Your task to perform on an android device: change timer sound Image 0: 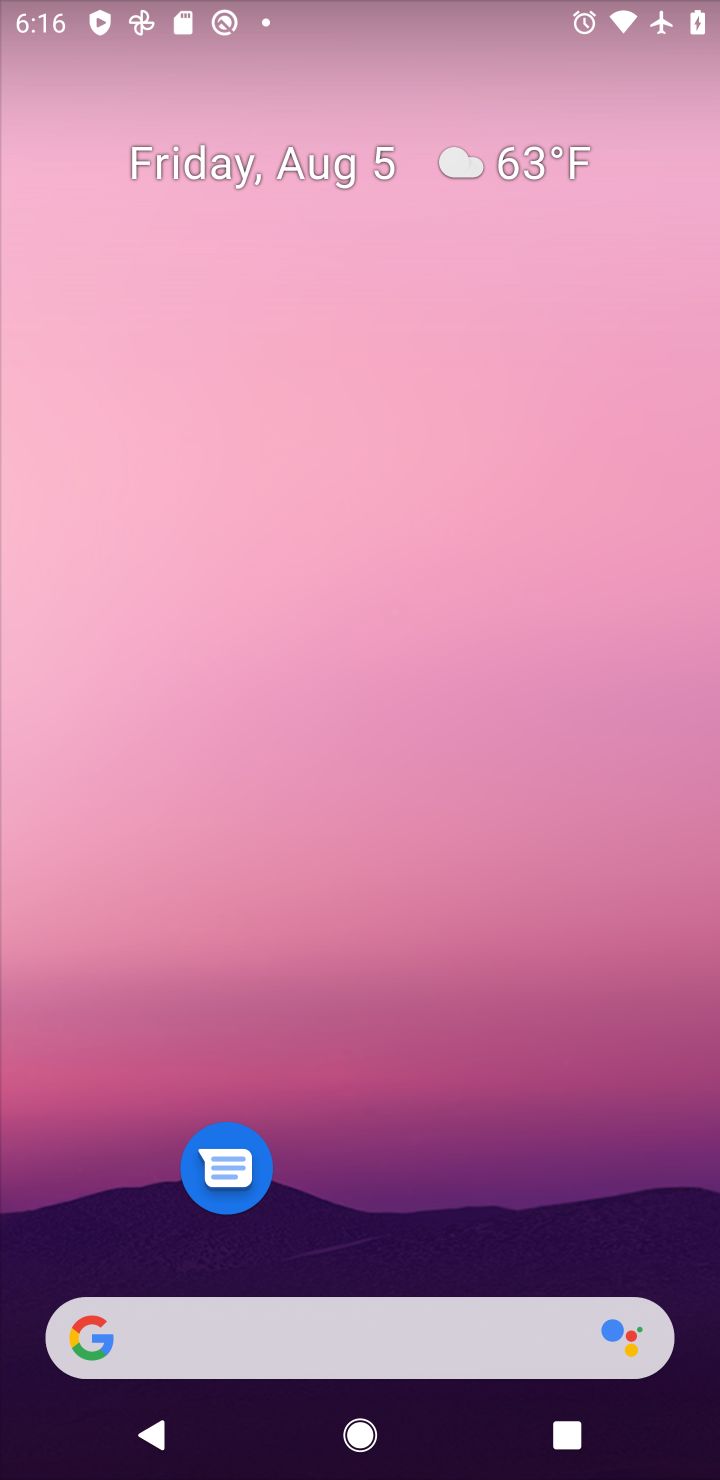
Step 0: press home button
Your task to perform on an android device: change timer sound Image 1: 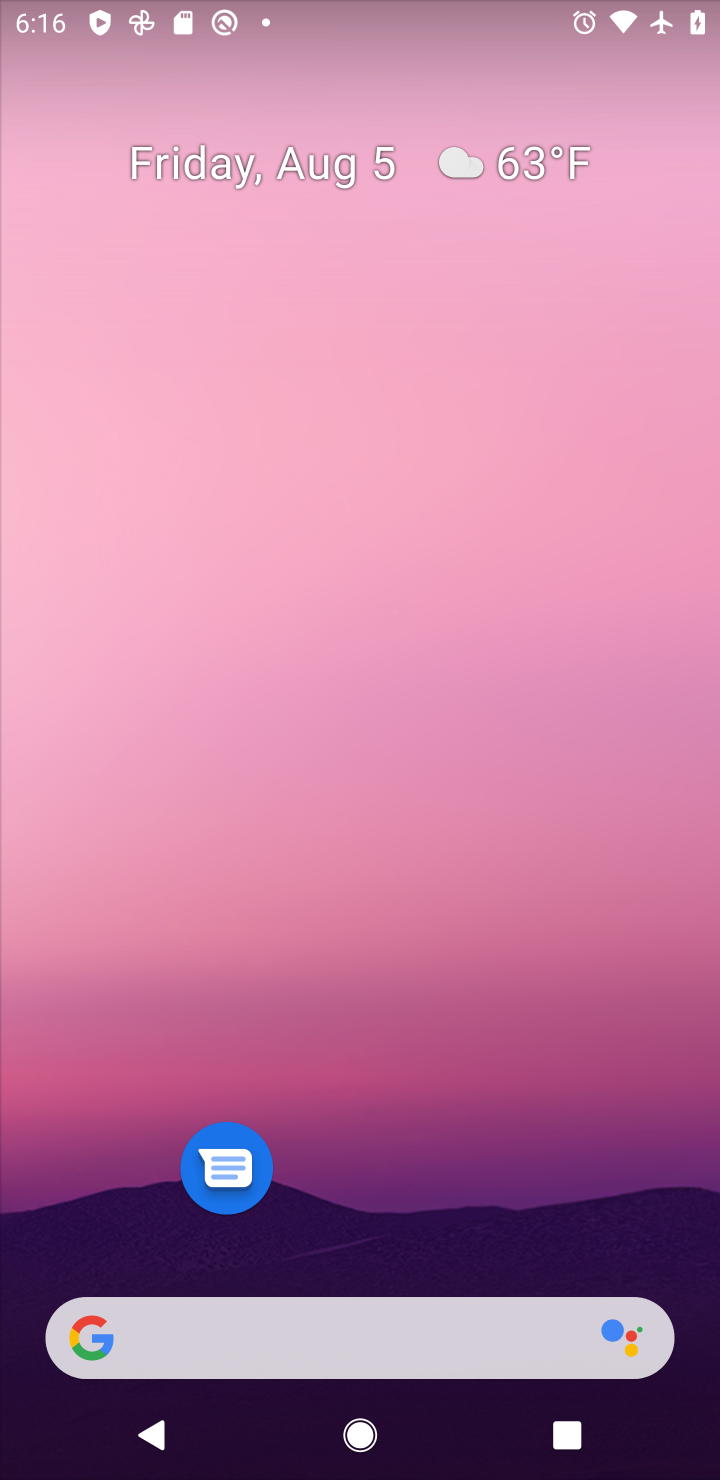
Step 1: drag from (401, 1267) to (437, 337)
Your task to perform on an android device: change timer sound Image 2: 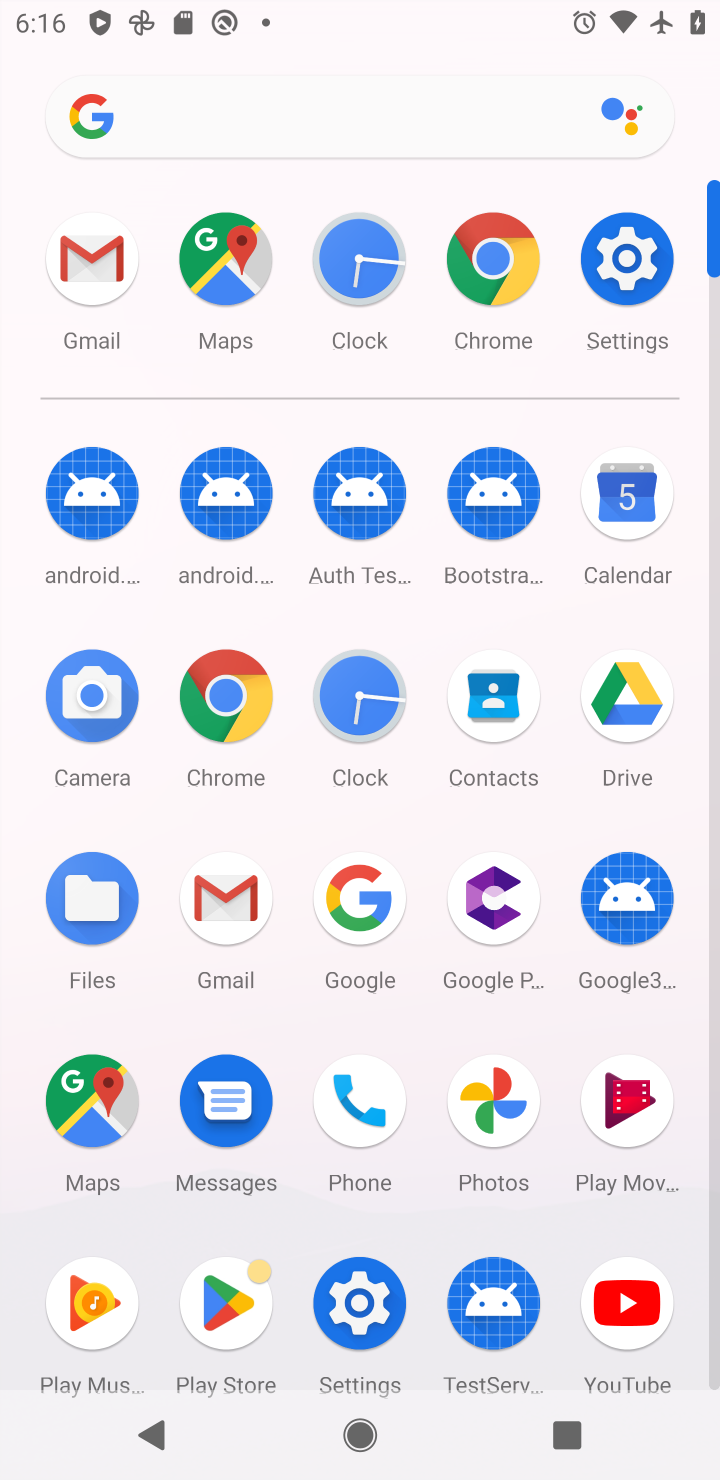
Step 2: click (356, 673)
Your task to perform on an android device: change timer sound Image 3: 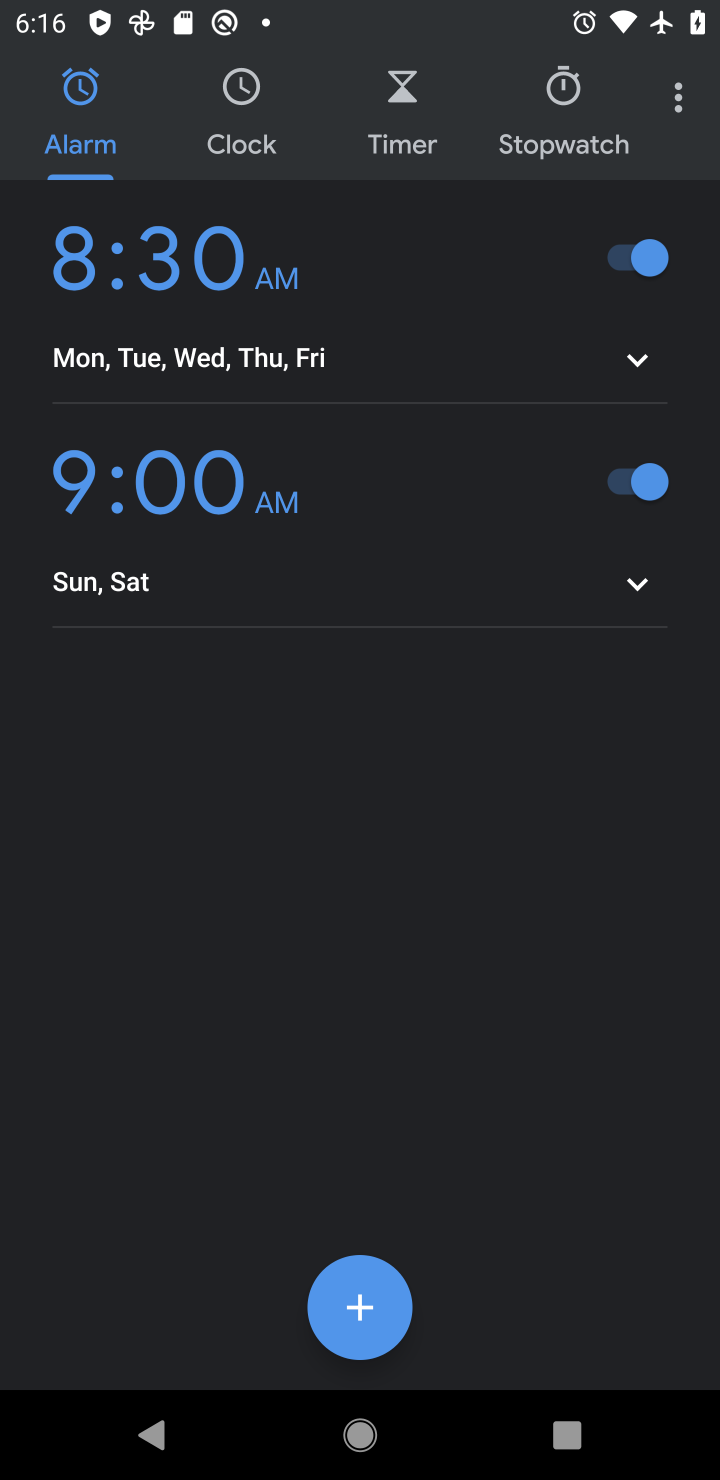
Step 3: click (677, 113)
Your task to perform on an android device: change timer sound Image 4: 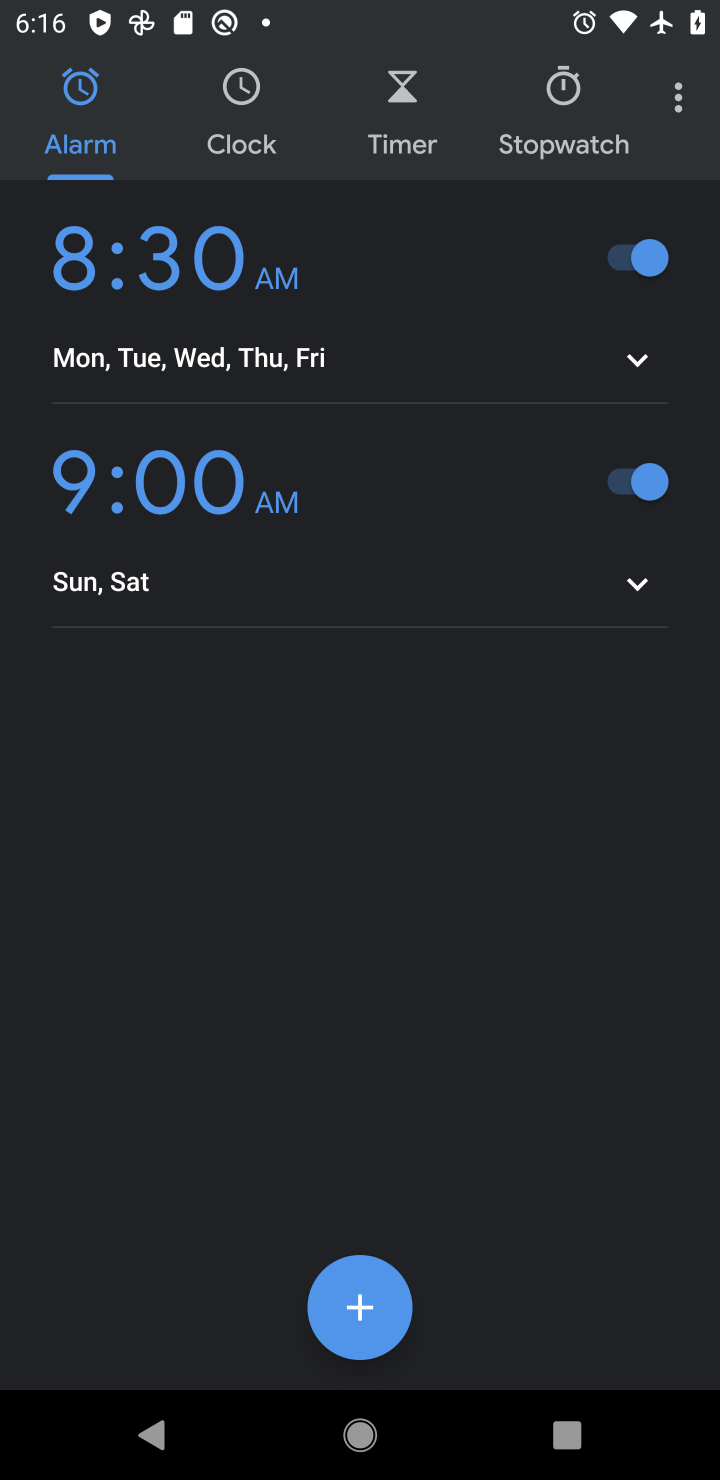
Step 4: click (671, 116)
Your task to perform on an android device: change timer sound Image 5: 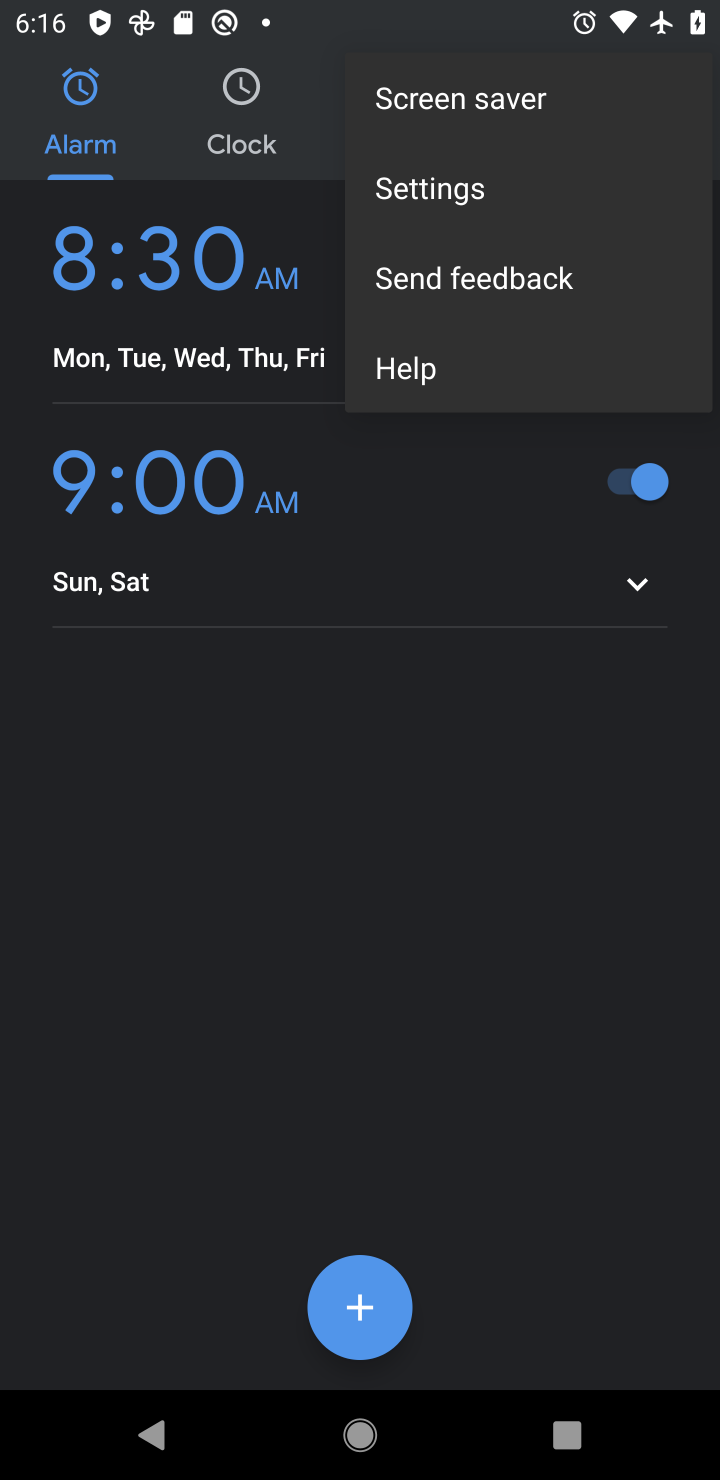
Step 5: click (409, 197)
Your task to perform on an android device: change timer sound Image 6: 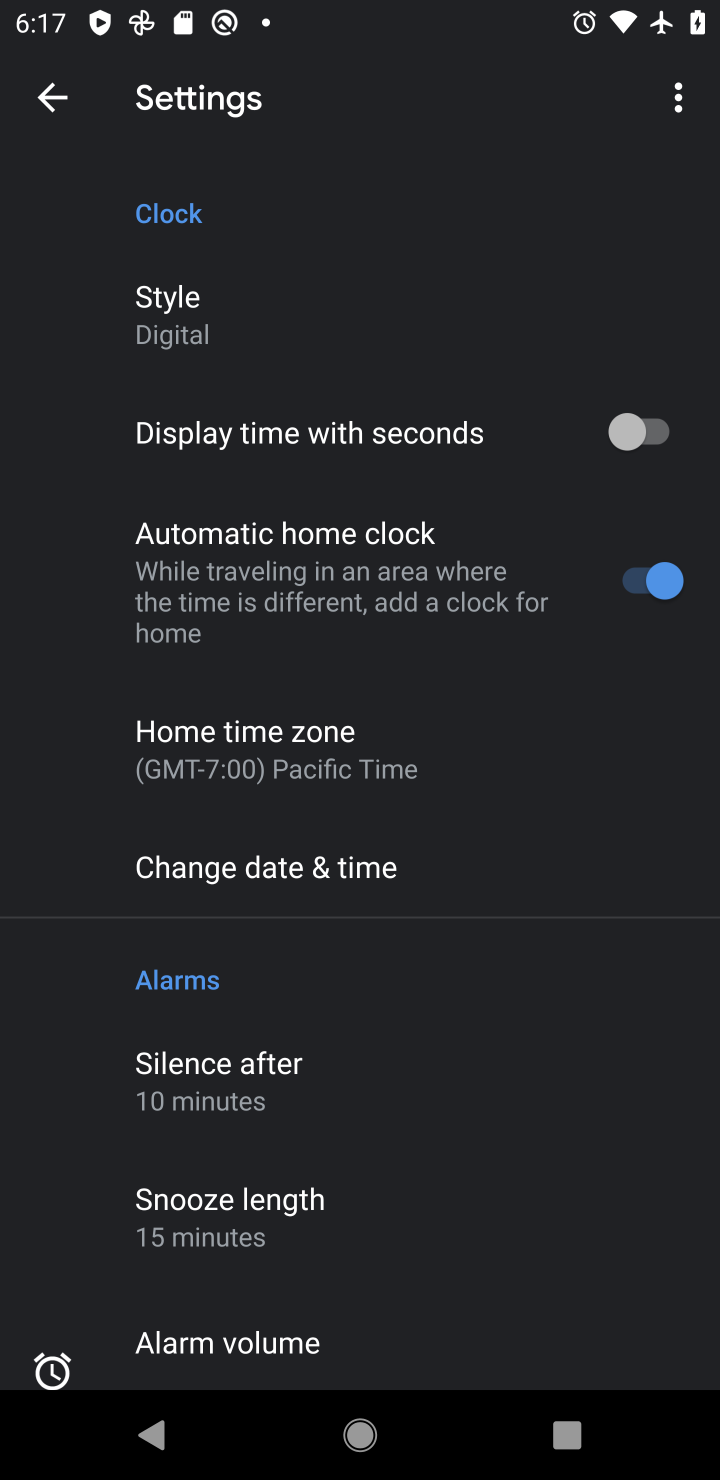
Step 6: drag from (572, 1249) to (566, 331)
Your task to perform on an android device: change timer sound Image 7: 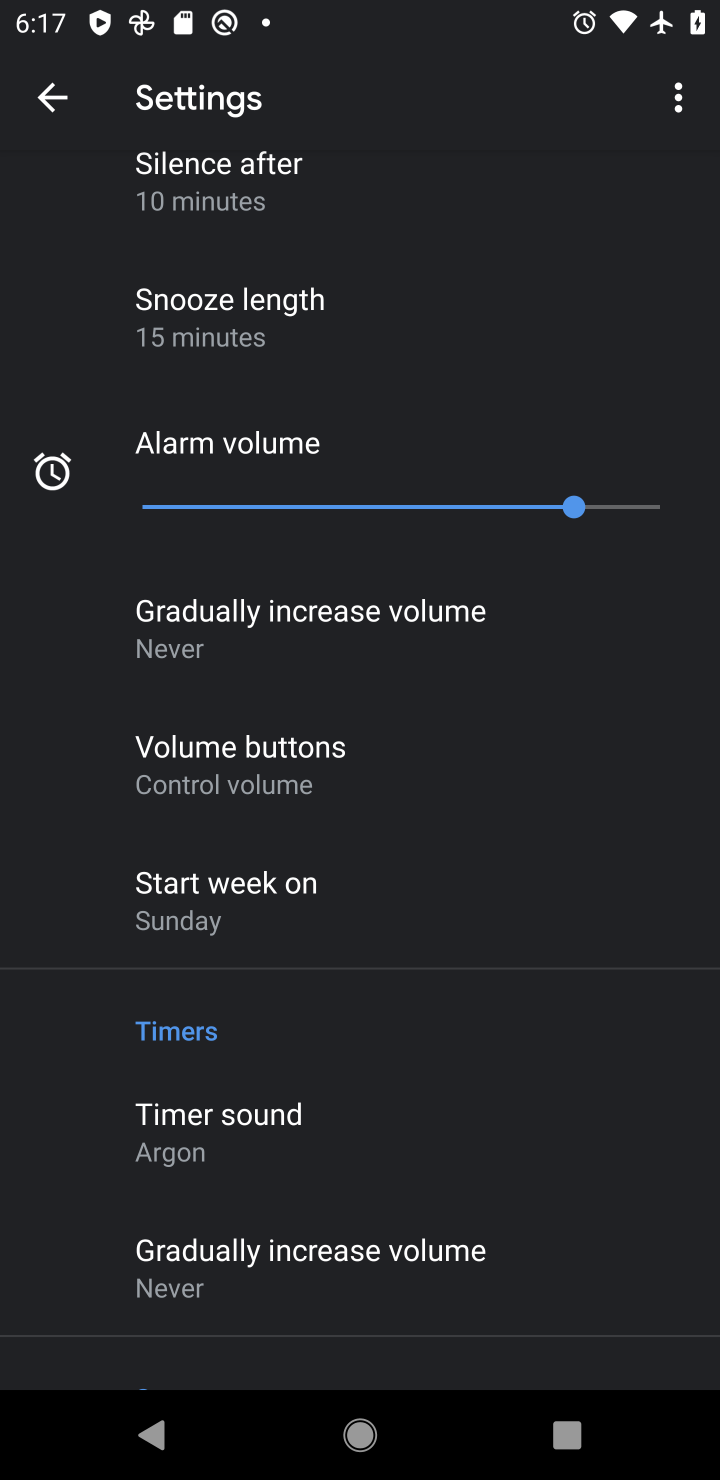
Step 7: click (226, 1122)
Your task to perform on an android device: change timer sound Image 8: 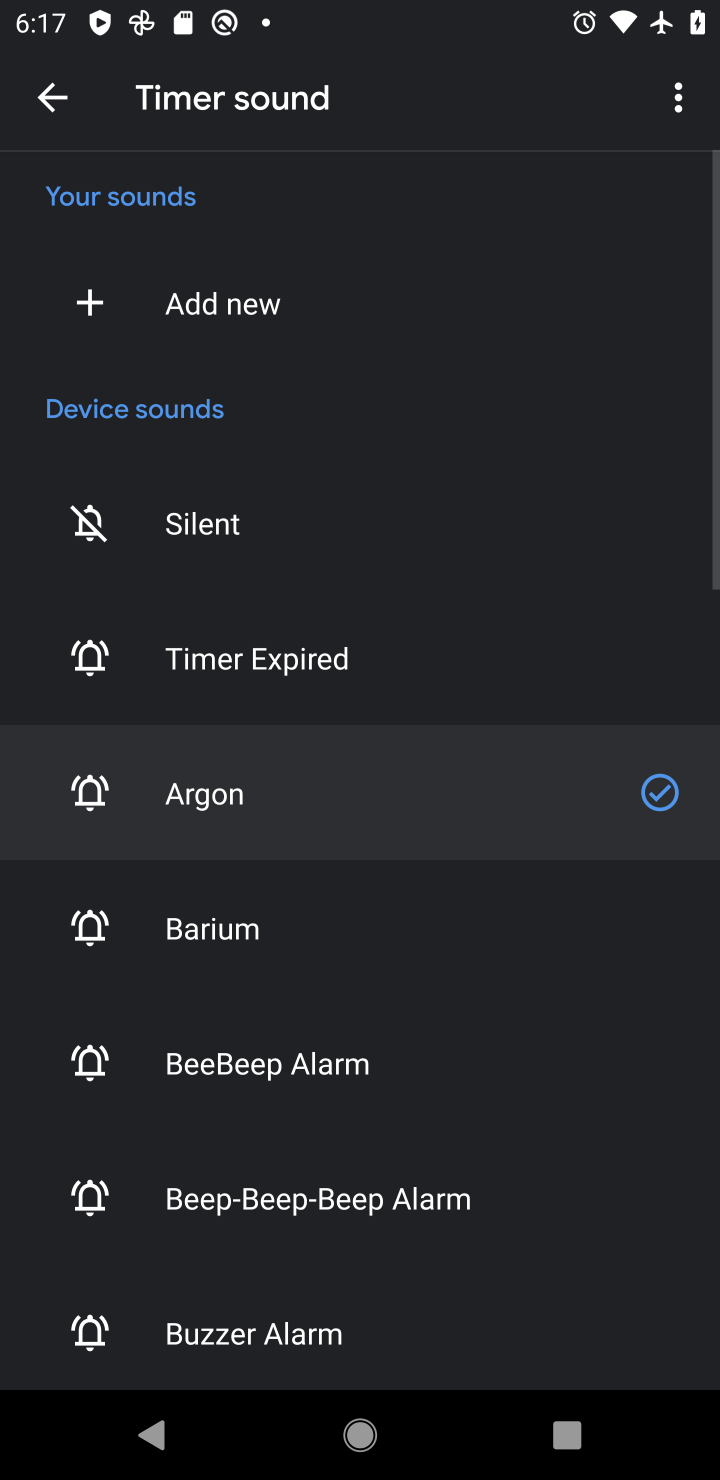
Step 8: click (213, 952)
Your task to perform on an android device: change timer sound Image 9: 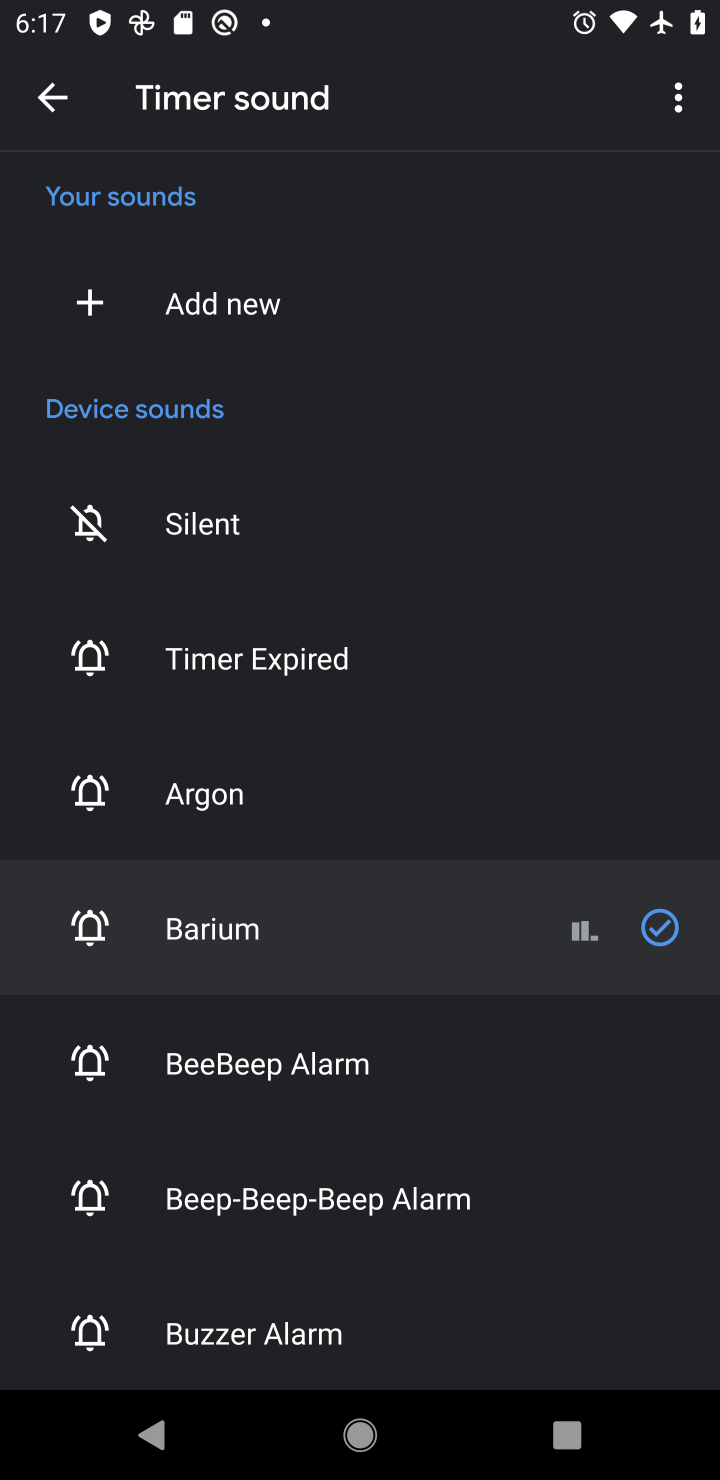
Step 9: task complete